Your task to perform on an android device: install app "Google Drive" Image 0: 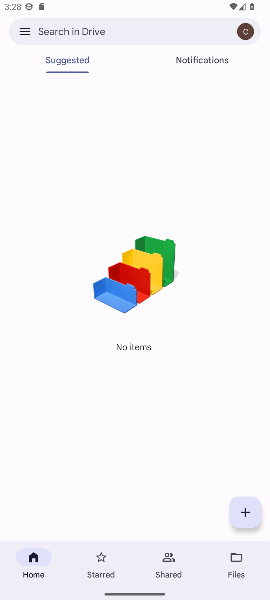
Step 0: press home button
Your task to perform on an android device: install app "Google Drive" Image 1: 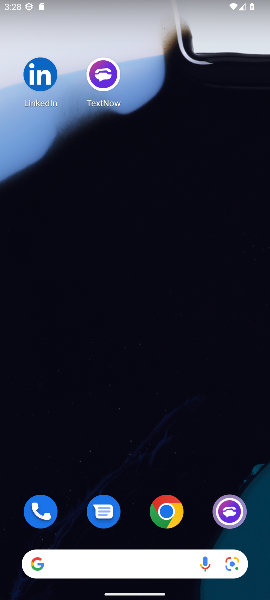
Step 1: drag from (118, 546) to (110, 188)
Your task to perform on an android device: install app "Google Drive" Image 2: 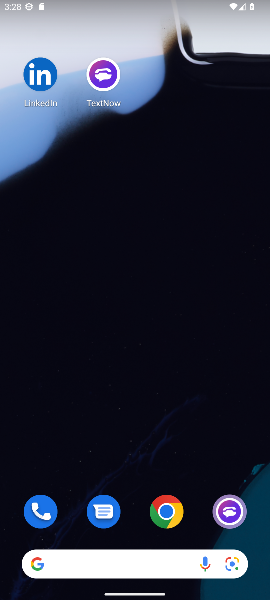
Step 2: drag from (134, 538) to (117, 117)
Your task to perform on an android device: install app "Google Drive" Image 3: 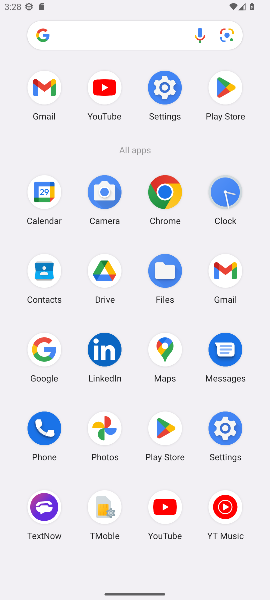
Step 3: click (230, 88)
Your task to perform on an android device: install app "Google Drive" Image 4: 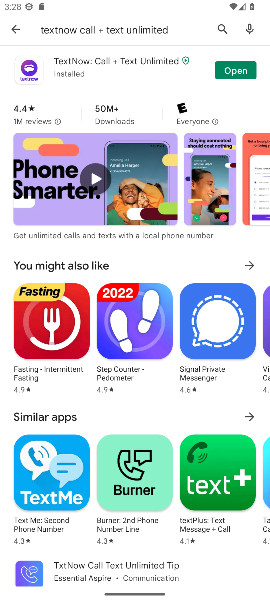
Step 4: click (177, 28)
Your task to perform on an android device: install app "Google Drive" Image 5: 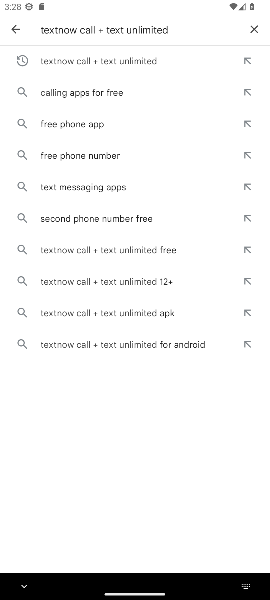
Step 5: click (248, 27)
Your task to perform on an android device: install app "Google Drive" Image 6: 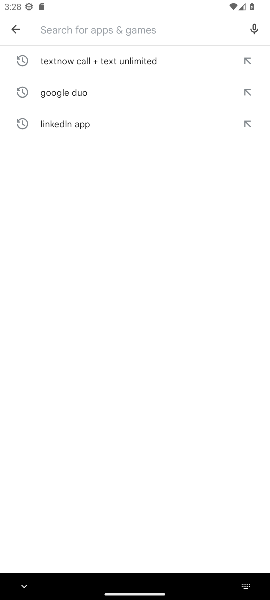
Step 6: type "google drive"
Your task to perform on an android device: install app "Google Drive" Image 7: 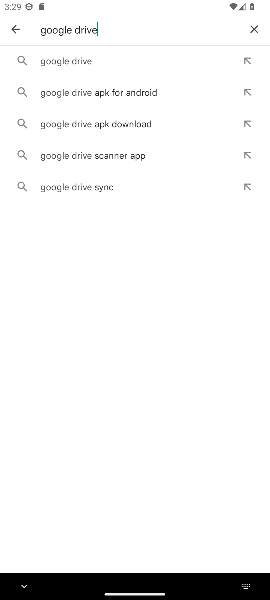
Step 7: click (67, 58)
Your task to perform on an android device: install app "Google Drive" Image 8: 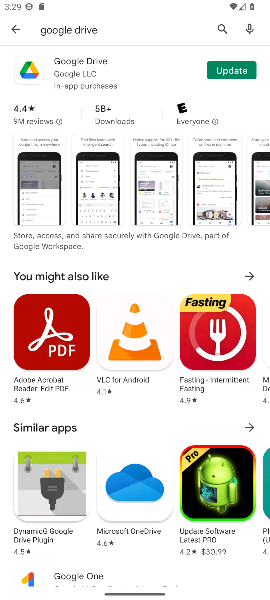
Step 8: task complete